Your task to perform on an android device: Open wifi settings Image 0: 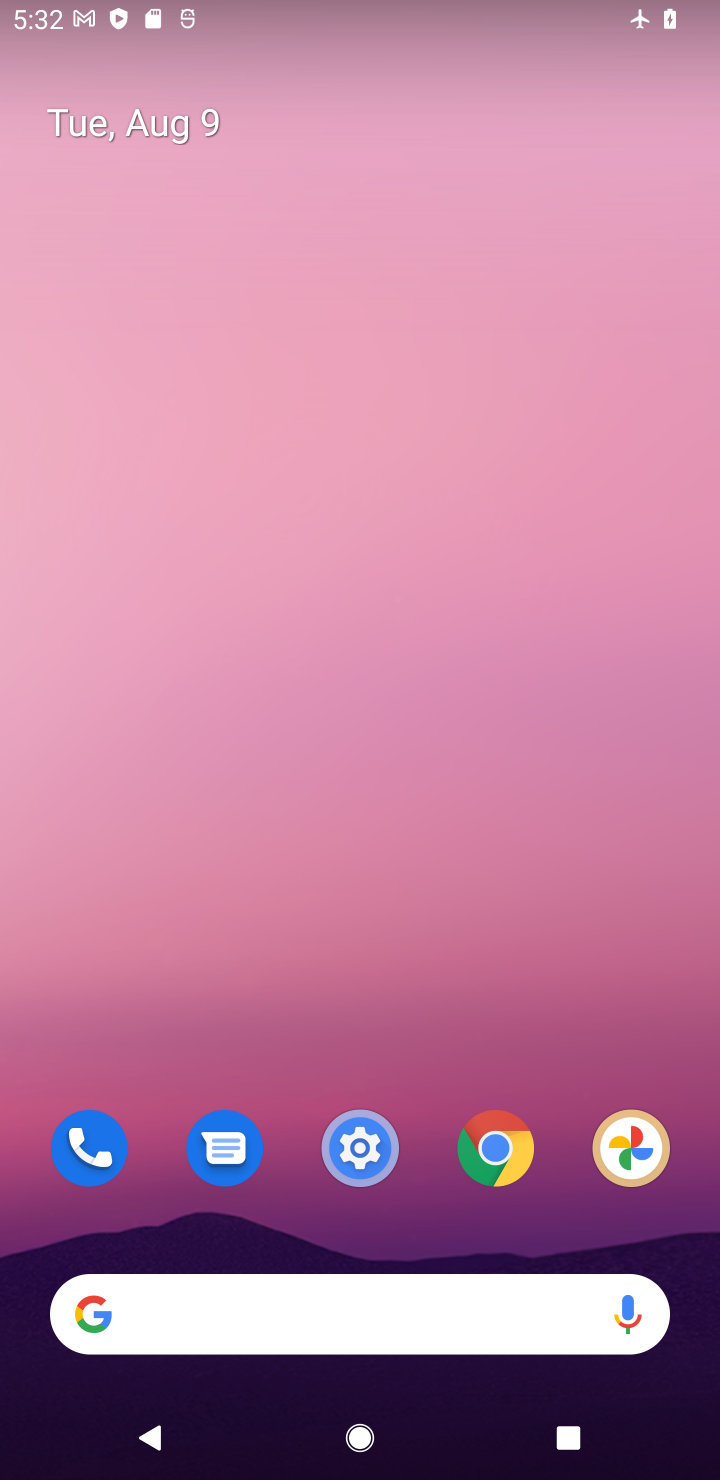
Step 0: drag from (350, 1248) to (456, 39)
Your task to perform on an android device: Open wifi settings Image 1: 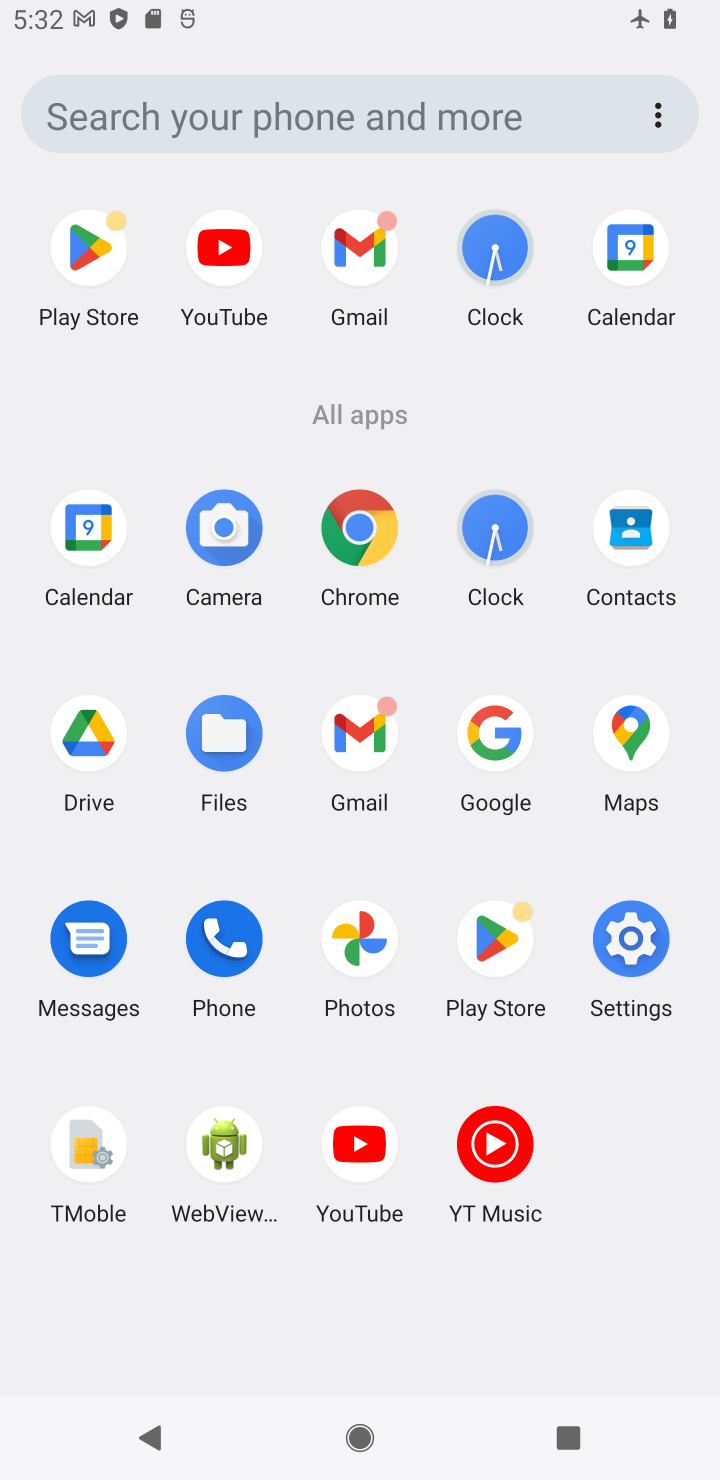
Step 1: click (637, 953)
Your task to perform on an android device: Open wifi settings Image 2: 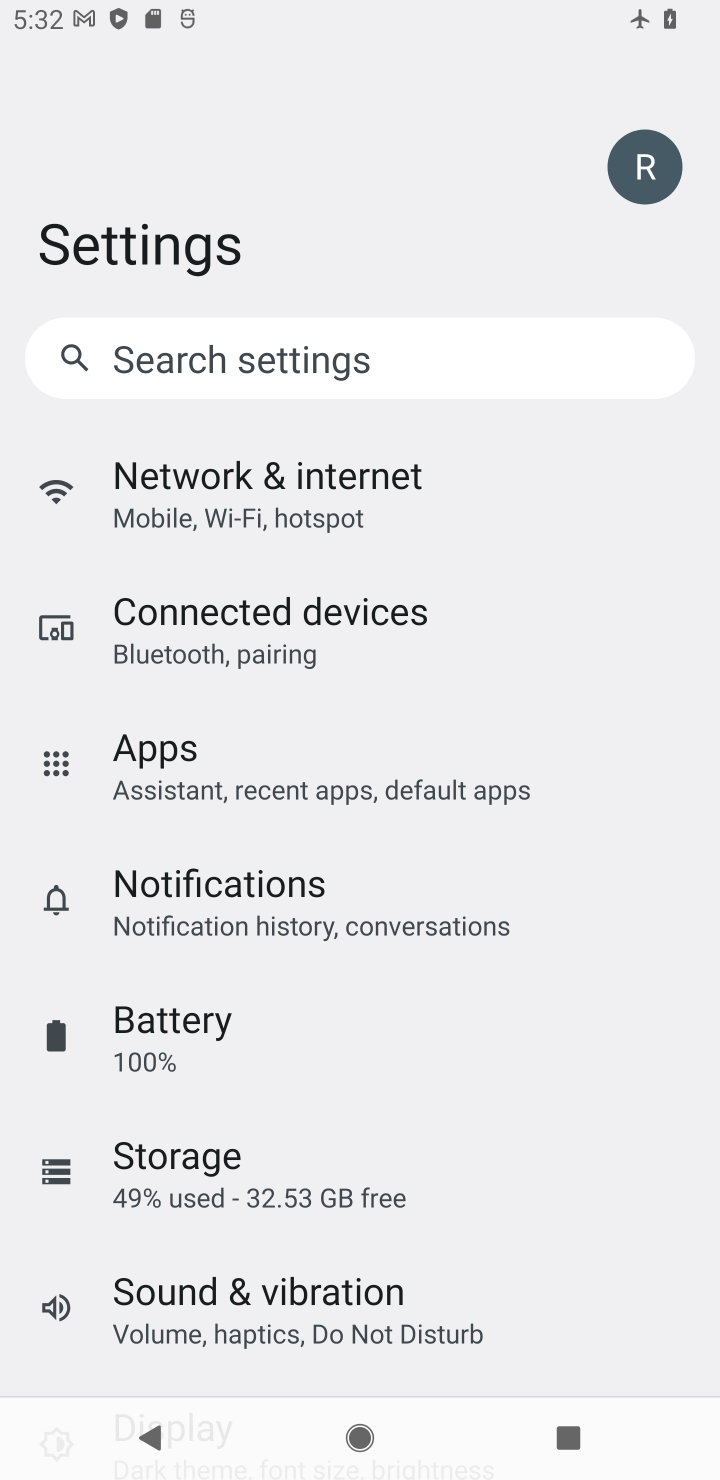
Step 2: click (229, 496)
Your task to perform on an android device: Open wifi settings Image 3: 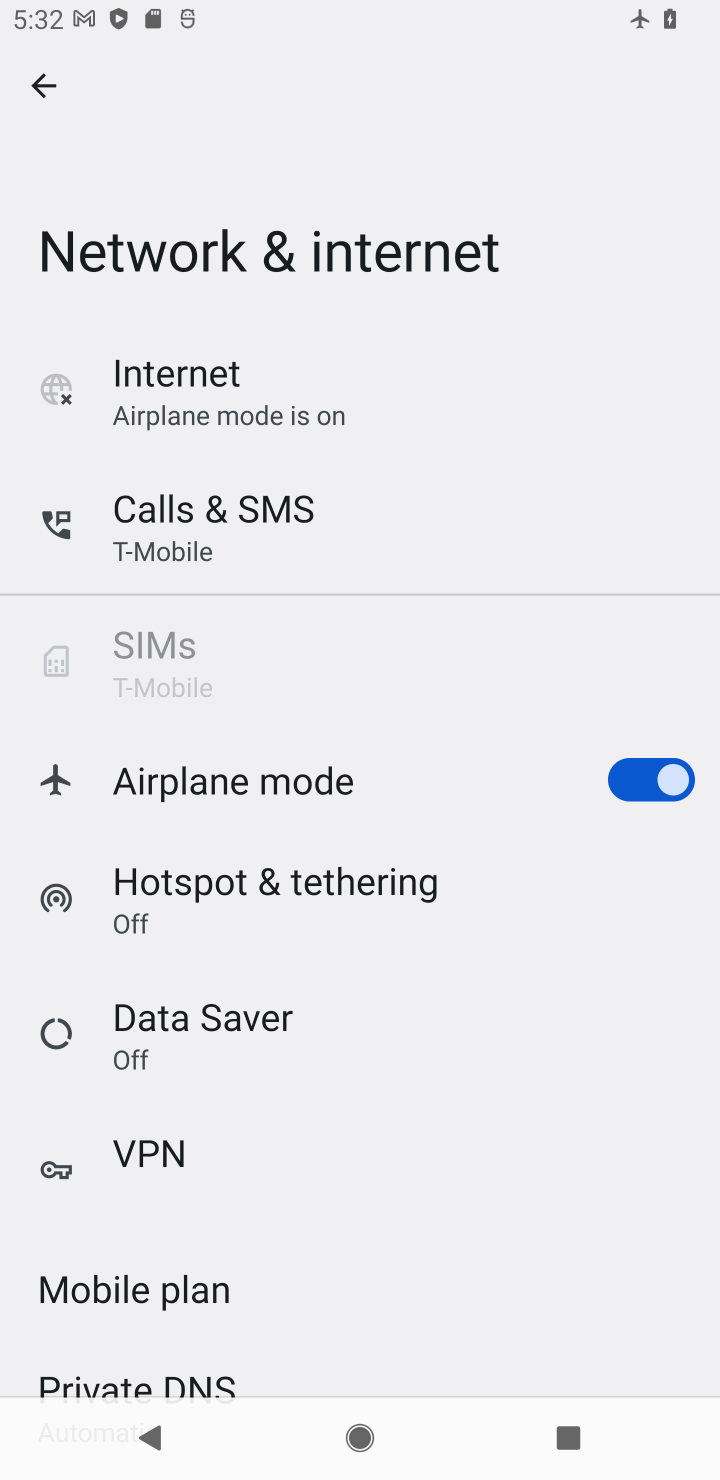
Step 3: click (247, 400)
Your task to perform on an android device: Open wifi settings Image 4: 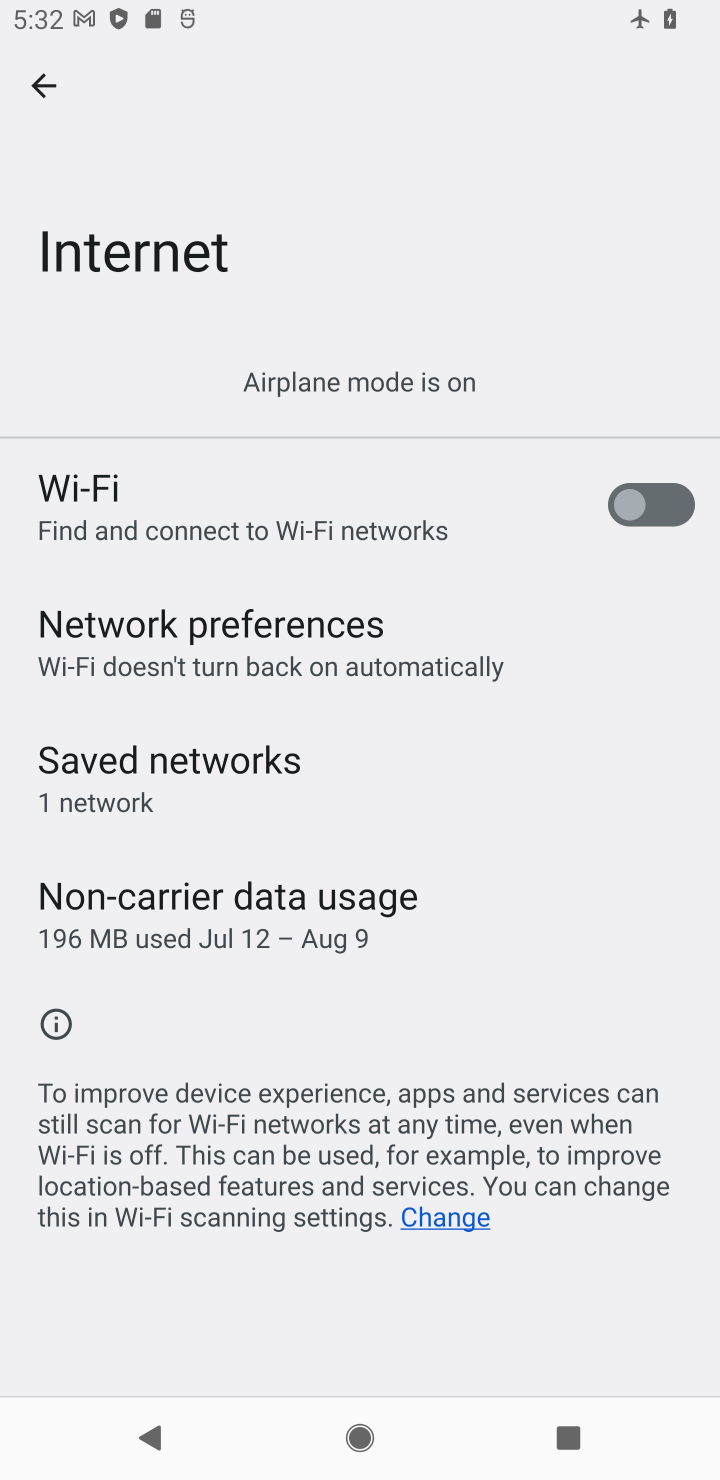
Step 4: click (678, 496)
Your task to perform on an android device: Open wifi settings Image 5: 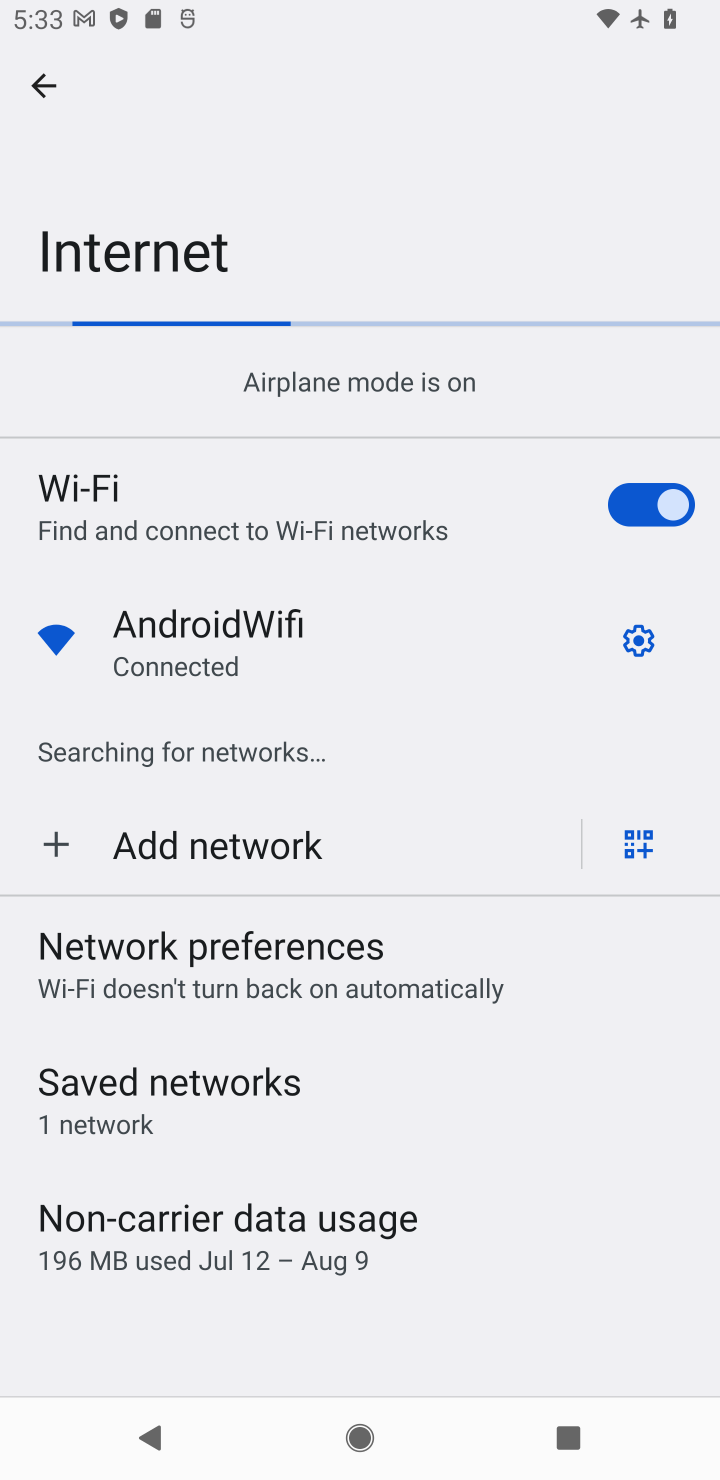
Step 5: task complete